Your task to perform on an android device: turn off airplane mode Image 0: 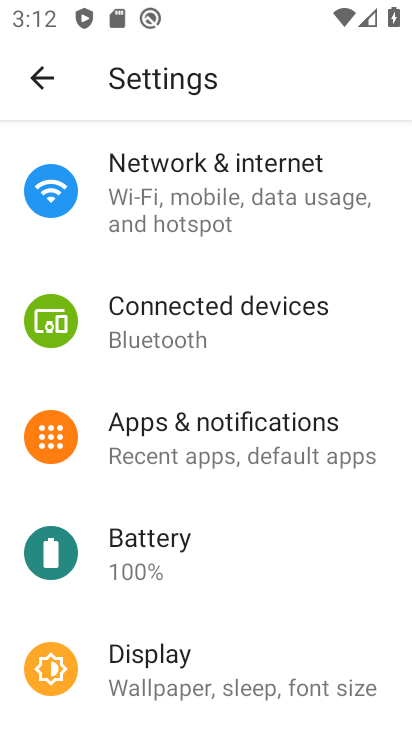
Step 0: click (210, 201)
Your task to perform on an android device: turn off airplane mode Image 1: 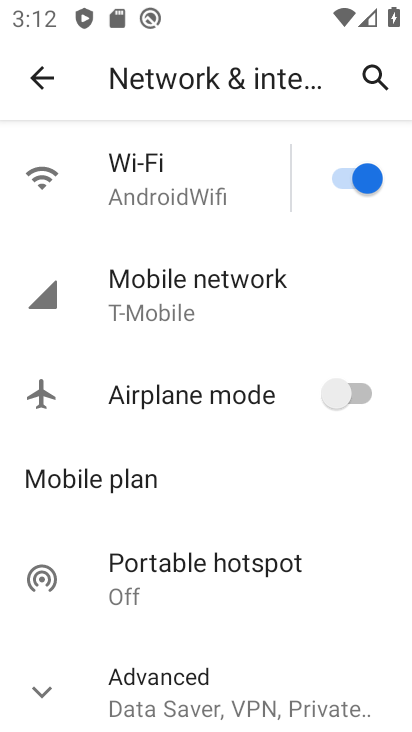
Step 1: task complete